Your task to perform on an android device: Go to CNN.com Image 0: 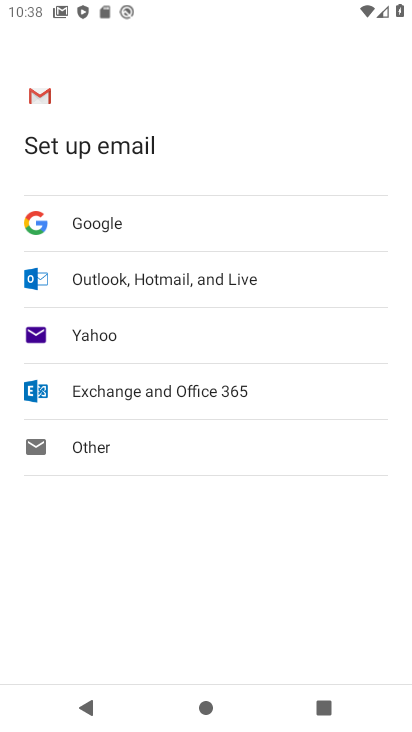
Step 0: press back button
Your task to perform on an android device: Go to CNN.com Image 1: 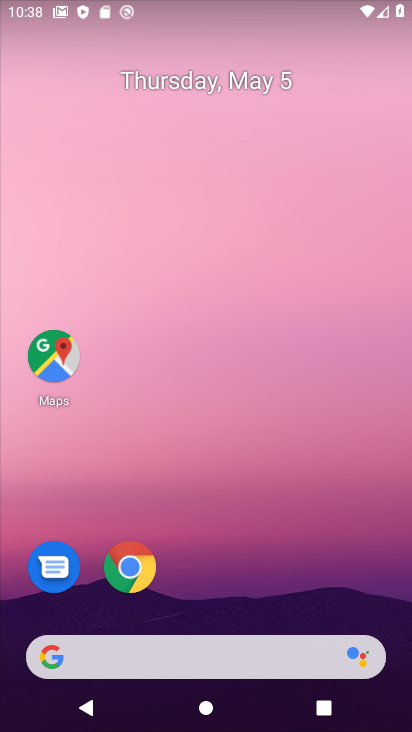
Step 1: click (118, 553)
Your task to perform on an android device: Go to CNN.com Image 2: 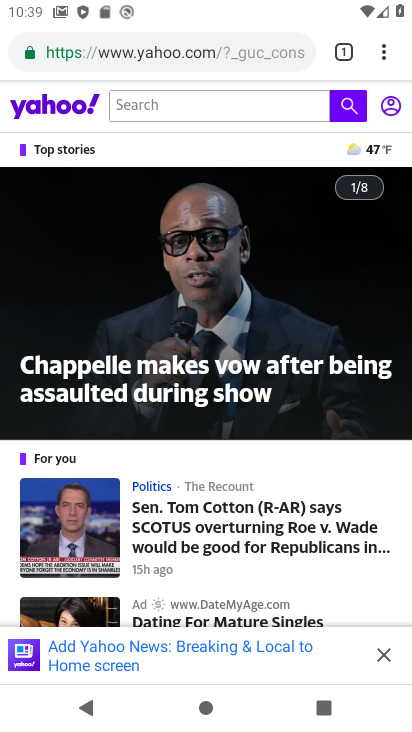
Step 2: click (342, 54)
Your task to perform on an android device: Go to CNN.com Image 3: 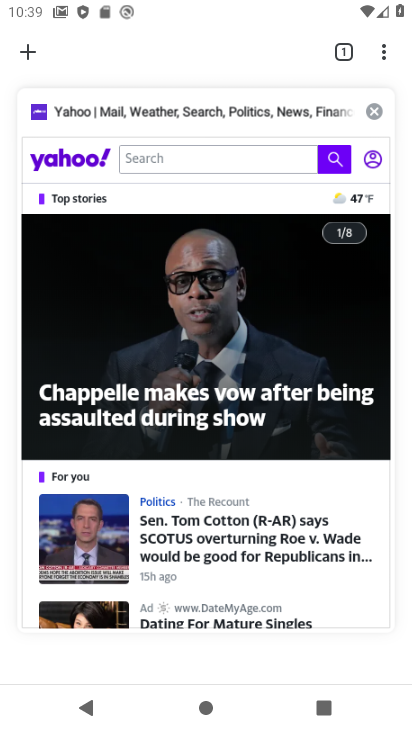
Step 3: click (36, 59)
Your task to perform on an android device: Go to CNN.com Image 4: 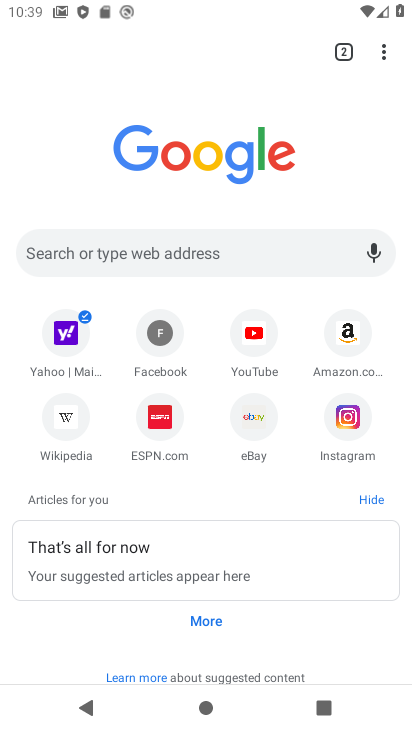
Step 4: click (152, 257)
Your task to perform on an android device: Go to CNN.com Image 5: 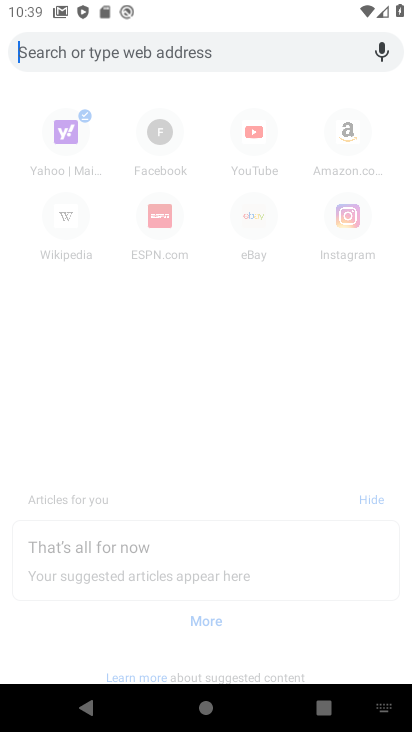
Step 5: type "cnn.com"
Your task to perform on an android device: Go to CNN.com Image 6: 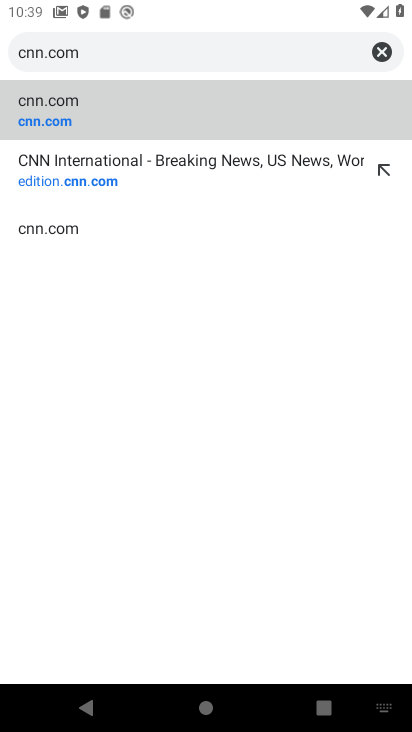
Step 6: click (124, 121)
Your task to perform on an android device: Go to CNN.com Image 7: 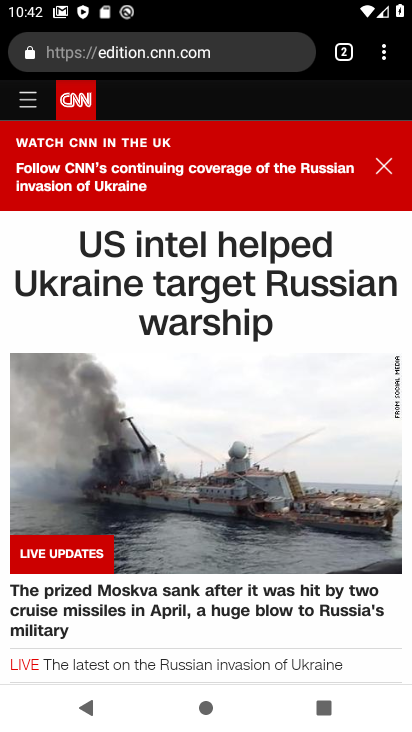
Step 7: task complete